Your task to perform on an android device: toggle location history Image 0: 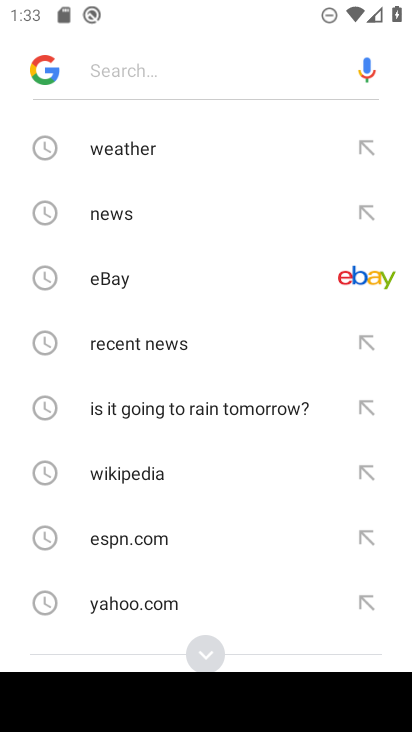
Step 0: press back button
Your task to perform on an android device: toggle location history Image 1: 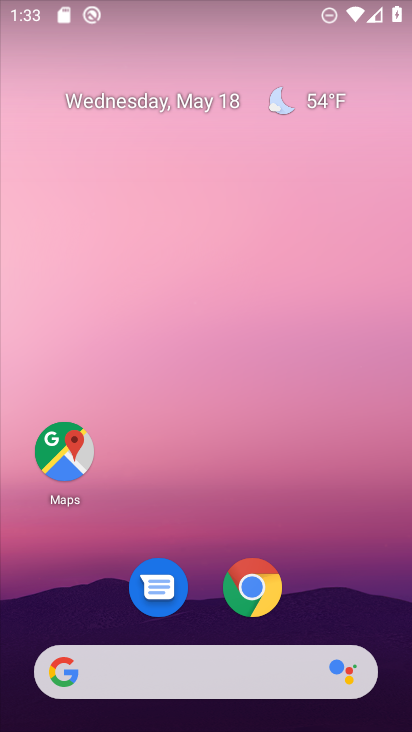
Step 1: drag from (118, 608) to (196, 208)
Your task to perform on an android device: toggle location history Image 2: 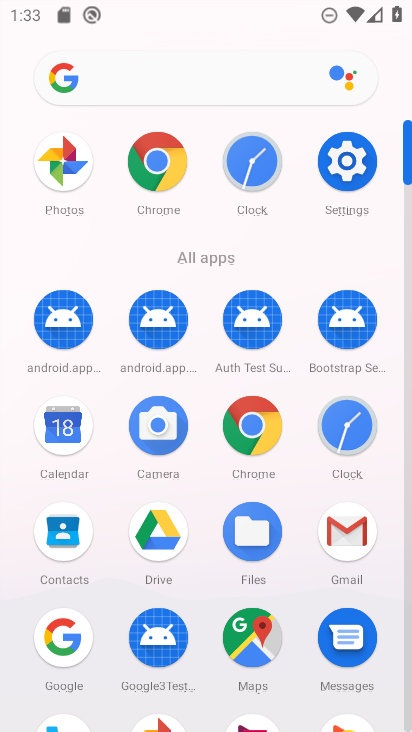
Step 2: drag from (159, 601) to (252, 435)
Your task to perform on an android device: toggle location history Image 3: 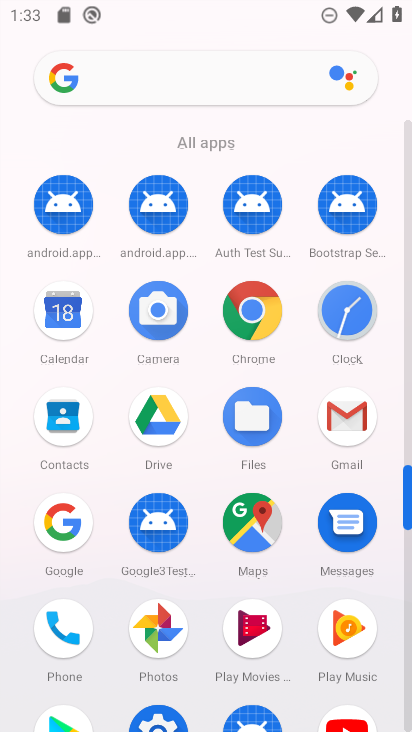
Step 3: drag from (211, 669) to (277, 470)
Your task to perform on an android device: toggle location history Image 4: 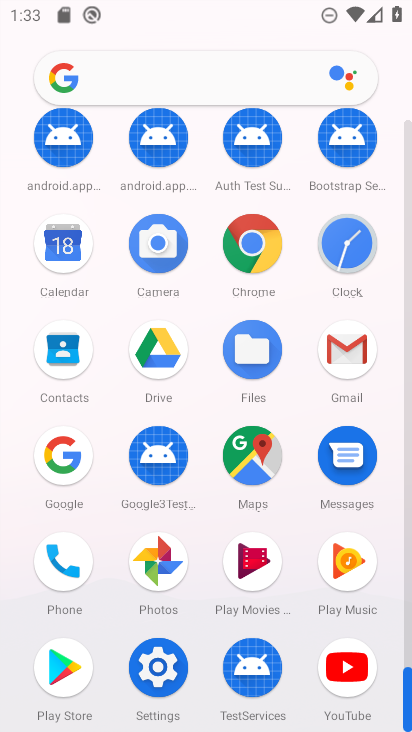
Step 4: click (159, 665)
Your task to perform on an android device: toggle location history Image 5: 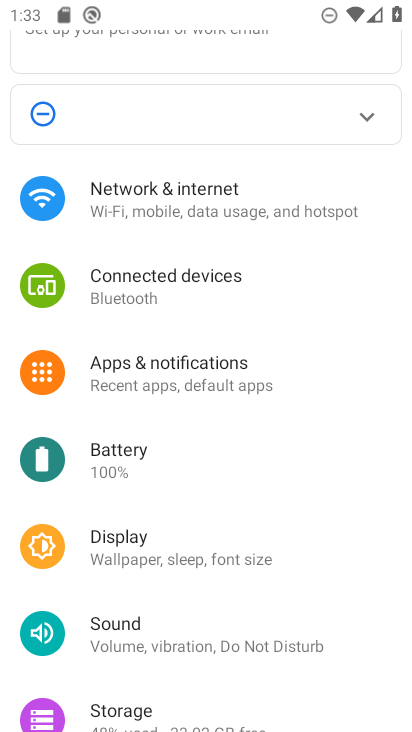
Step 5: drag from (191, 644) to (281, 343)
Your task to perform on an android device: toggle location history Image 6: 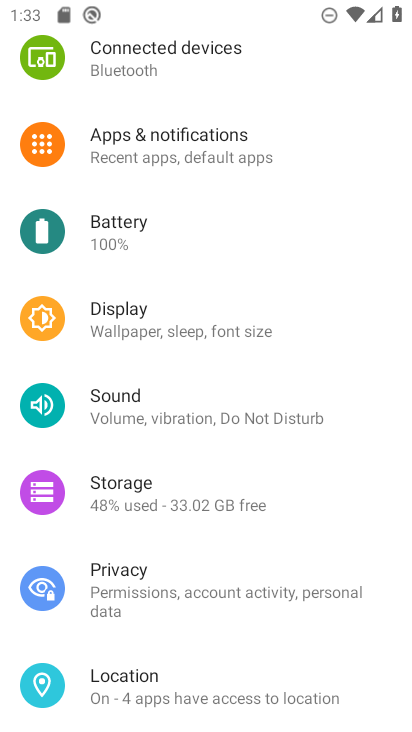
Step 6: drag from (196, 636) to (279, 400)
Your task to perform on an android device: toggle location history Image 7: 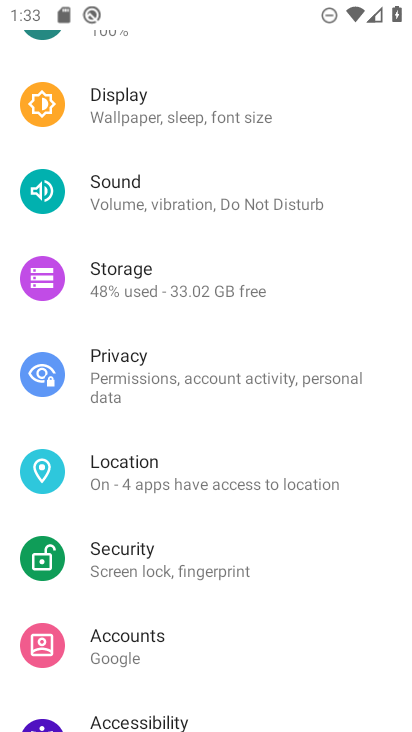
Step 7: click (151, 492)
Your task to perform on an android device: toggle location history Image 8: 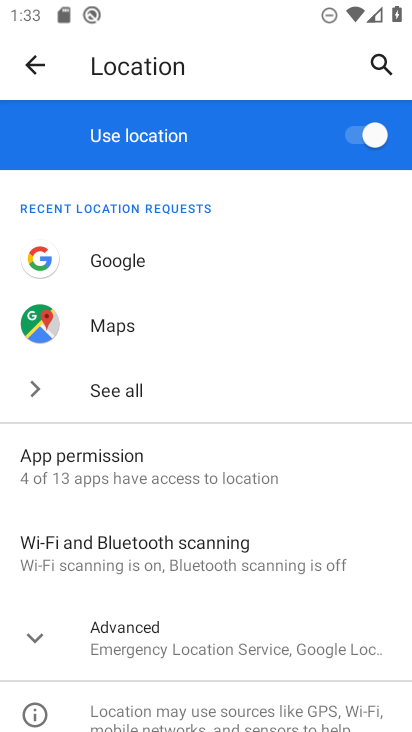
Step 8: click (194, 639)
Your task to perform on an android device: toggle location history Image 9: 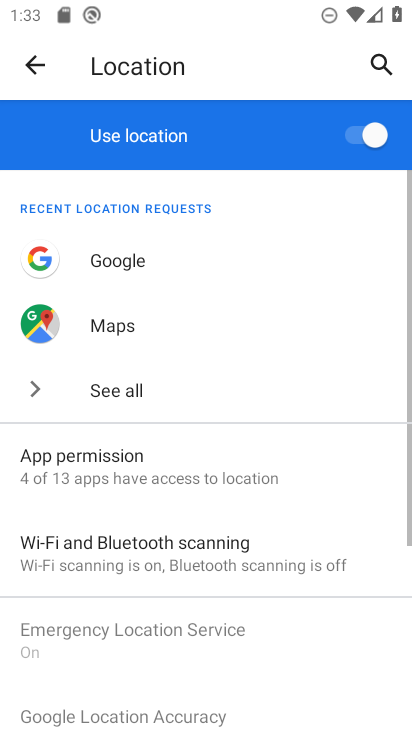
Step 9: drag from (196, 655) to (277, 369)
Your task to perform on an android device: toggle location history Image 10: 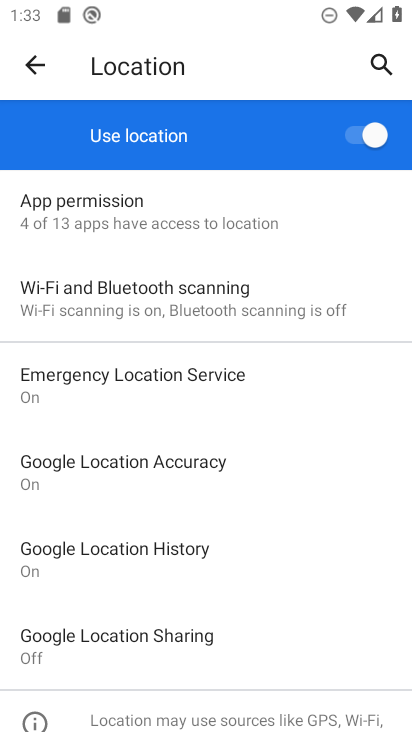
Step 10: click (182, 561)
Your task to perform on an android device: toggle location history Image 11: 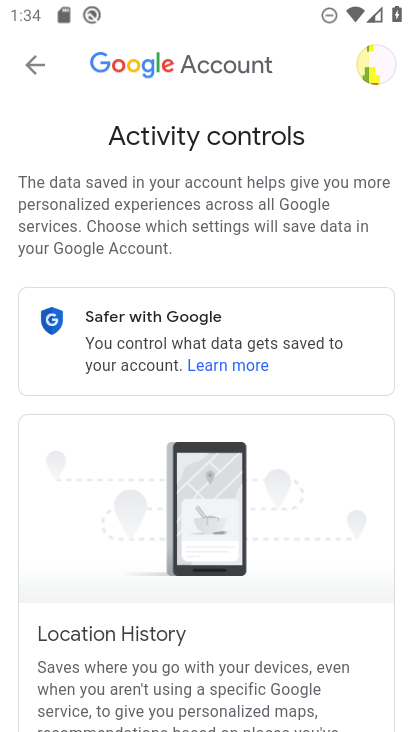
Step 11: drag from (200, 641) to (326, 267)
Your task to perform on an android device: toggle location history Image 12: 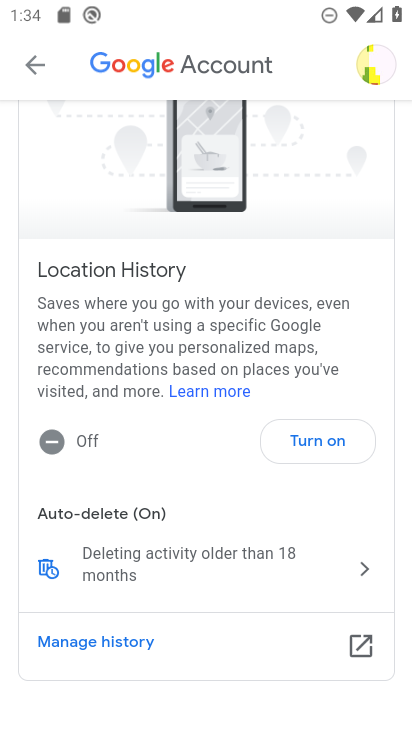
Step 12: click (339, 439)
Your task to perform on an android device: toggle location history Image 13: 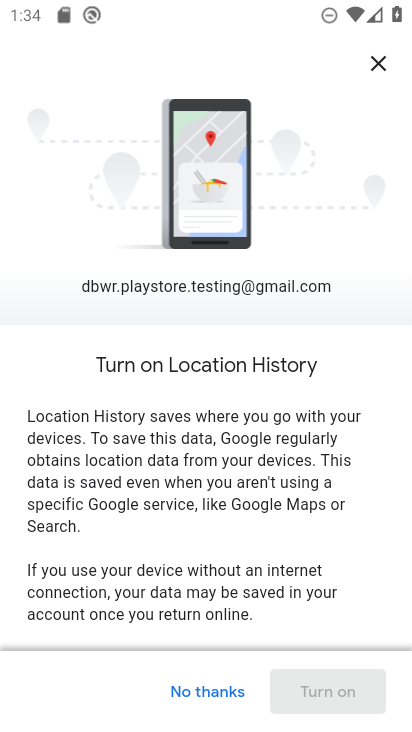
Step 13: drag from (196, 552) to (328, 158)
Your task to perform on an android device: toggle location history Image 14: 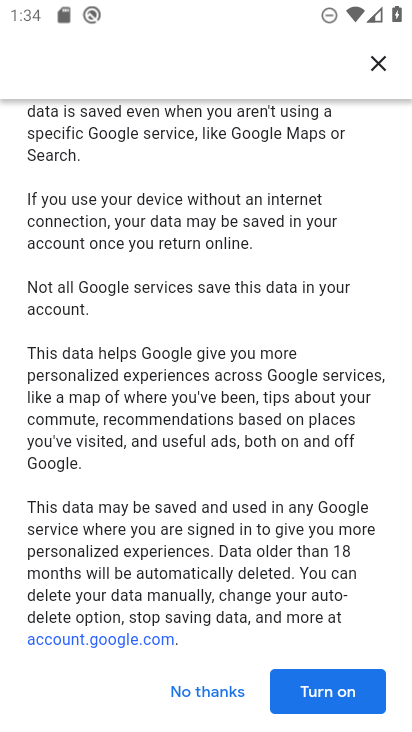
Step 14: drag from (231, 546) to (313, 298)
Your task to perform on an android device: toggle location history Image 15: 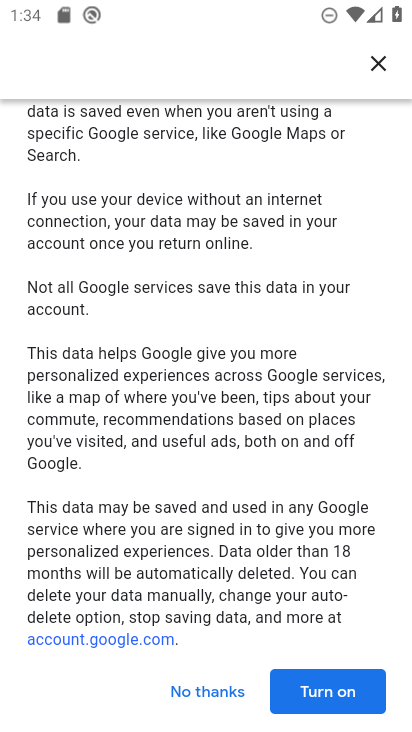
Step 15: click (330, 688)
Your task to perform on an android device: toggle location history Image 16: 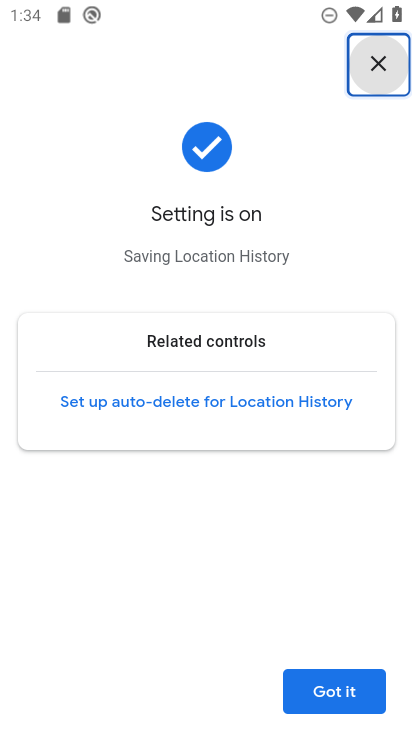
Step 16: click (374, 687)
Your task to perform on an android device: toggle location history Image 17: 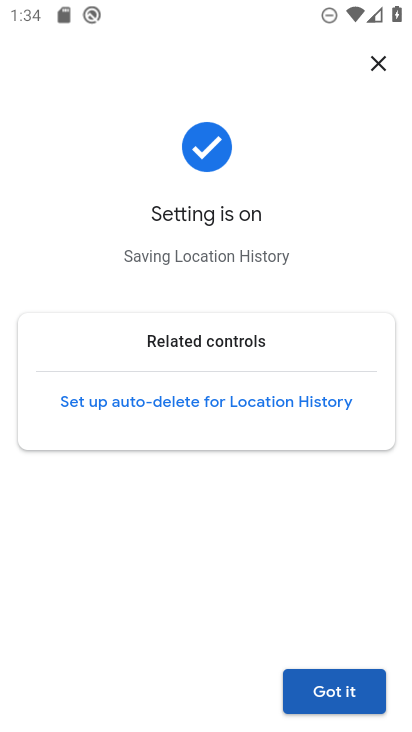
Step 17: click (369, 691)
Your task to perform on an android device: toggle location history Image 18: 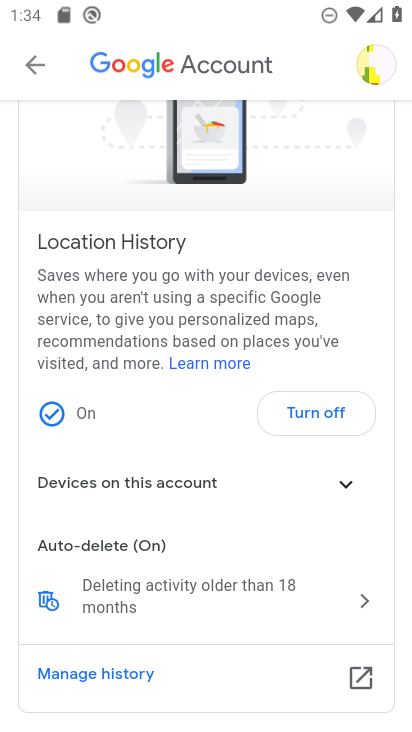
Step 18: task complete